Your task to perform on an android device: Open the Play Movies app and select the watchlist tab. Image 0: 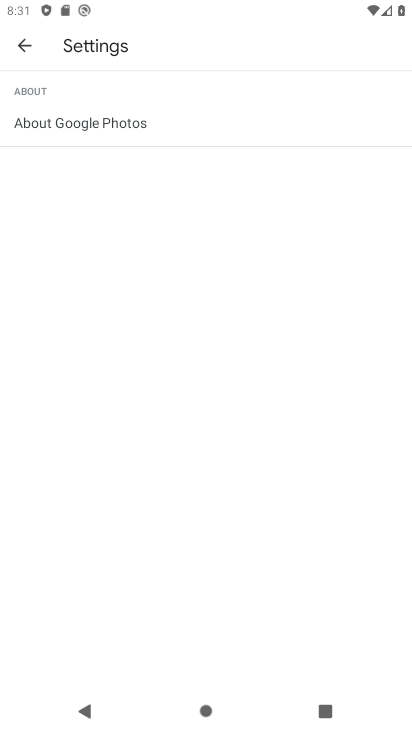
Step 0: press home button
Your task to perform on an android device: Open the Play Movies app and select the watchlist tab. Image 1: 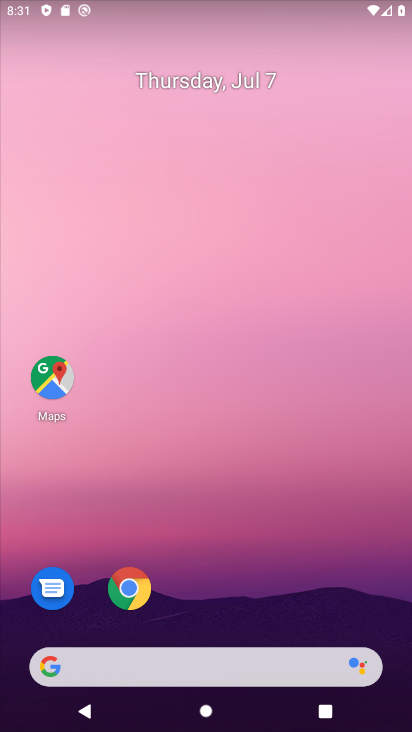
Step 1: drag from (223, 538) to (125, 25)
Your task to perform on an android device: Open the Play Movies app and select the watchlist tab. Image 2: 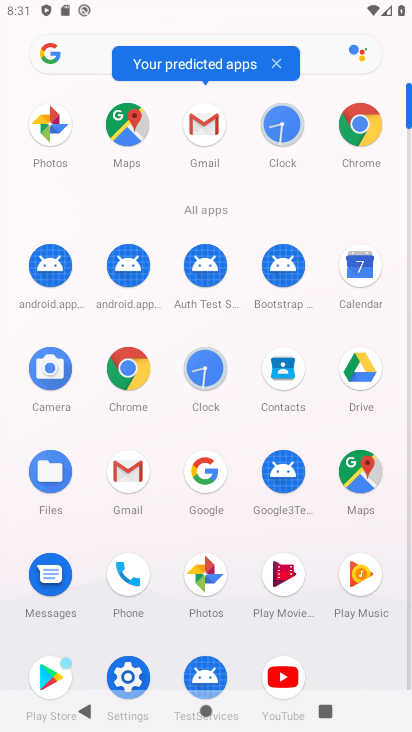
Step 2: click (284, 576)
Your task to perform on an android device: Open the Play Movies app and select the watchlist tab. Image 3: 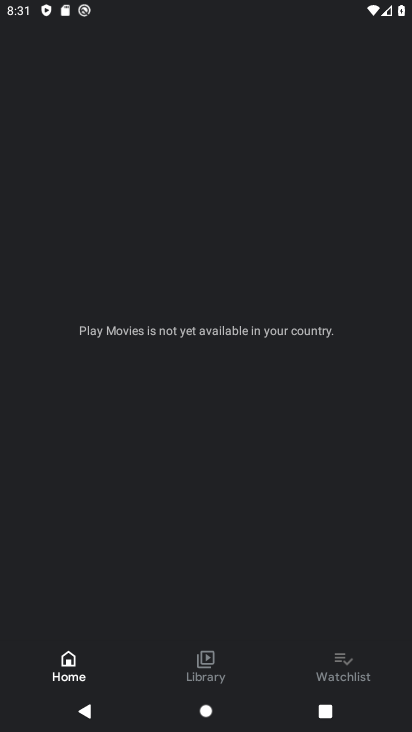
Step 3: click (342, 661)
Your task to perform on an android device: Open the Play Movies app and select the watchlist tab. Image 4: 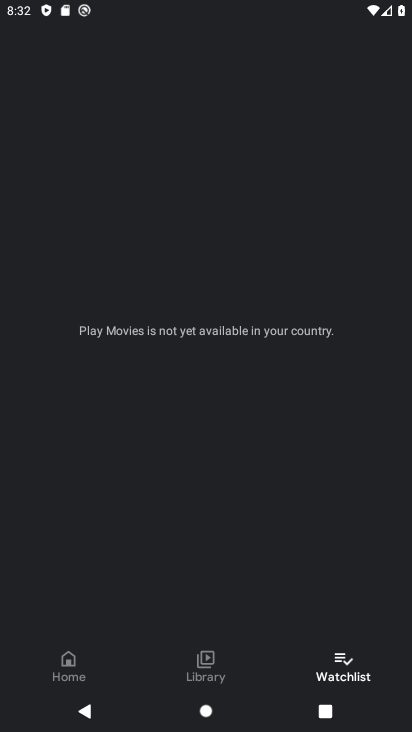
Step 4: task complete